Your task to perform on an android device: delete the emails in spam in the gmail app Image 0: 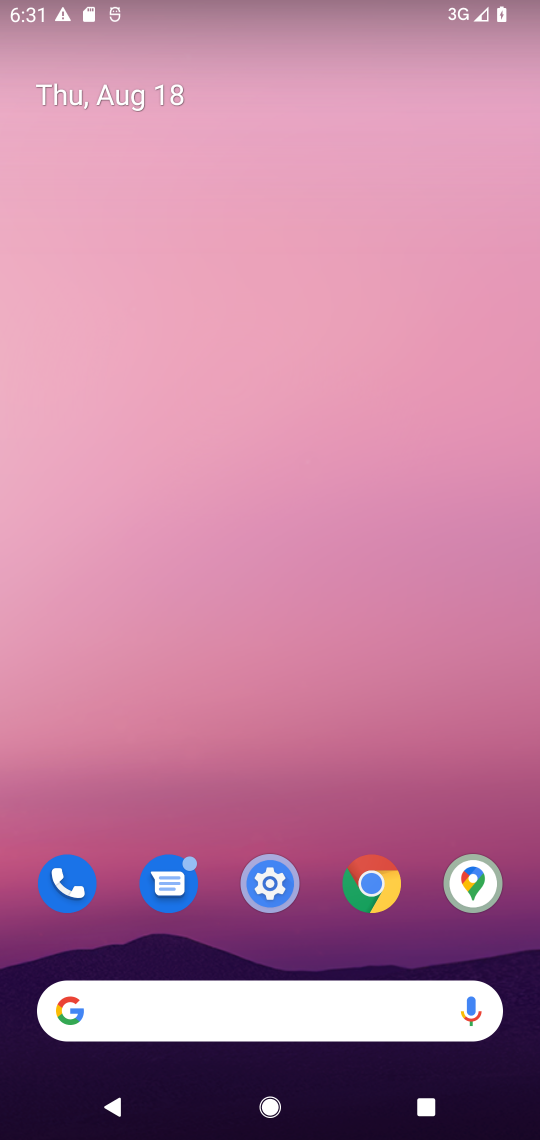
Step 0: drag from (47, 1086) to (270, 408)
Your task to perform on an android device: delete the emails in spam in the gmail app Image 1: 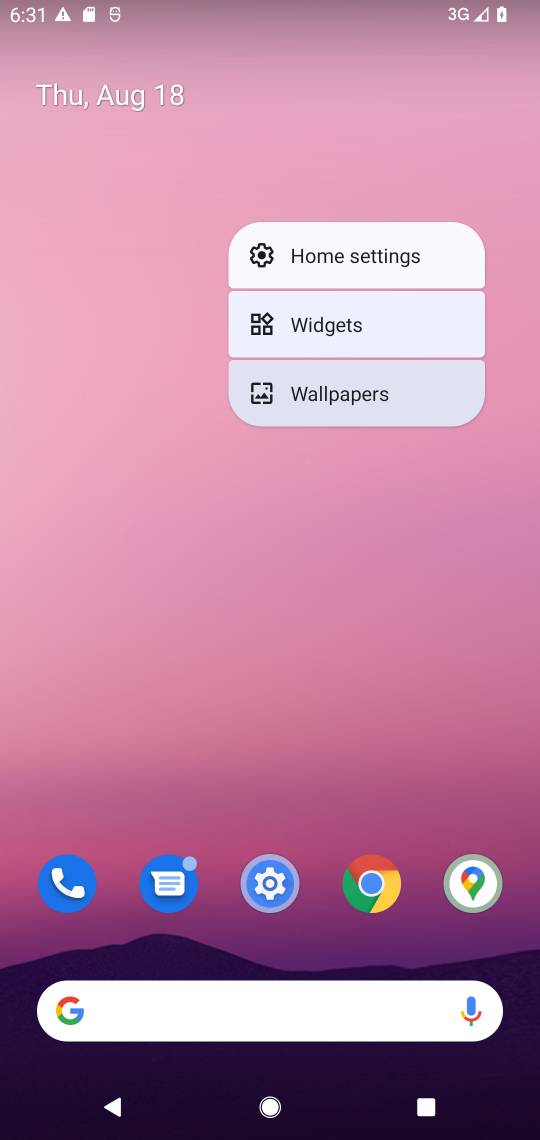
Step 1: drag from (21, 1068) to (137, 335)
Your task to perform on an android device: delete the emails in spam in the gmail app Image 2: 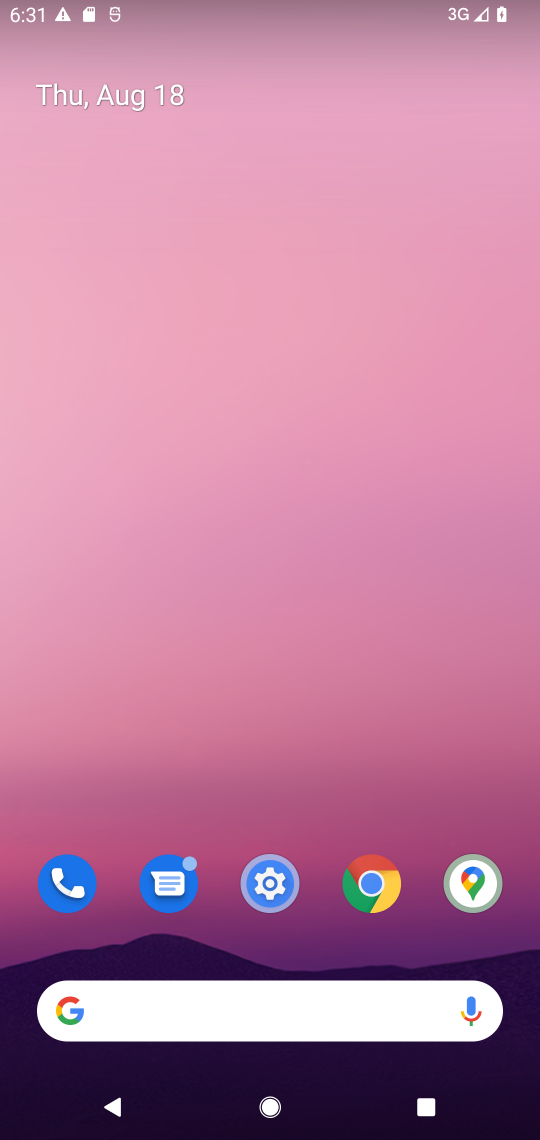
Step 2: drag from (42, 1096) to (337, 210)
Your task to perform on an android device: delete the emails in spam in the gmail app Image 3: 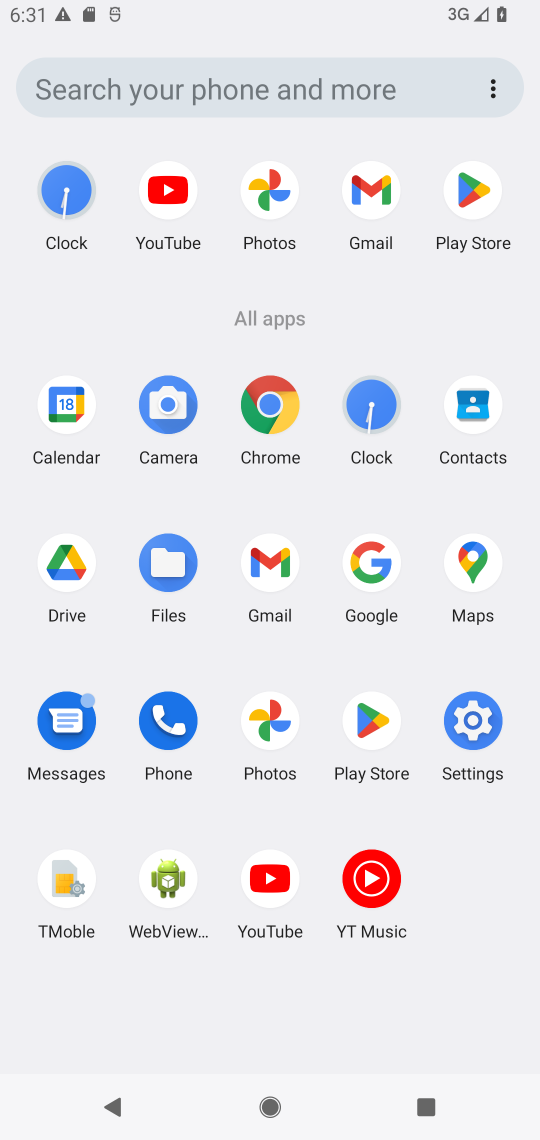
Step 3: click (357, 191)
Your task to perform on an android device: delete the emails in spam in the gmail app Image 4: 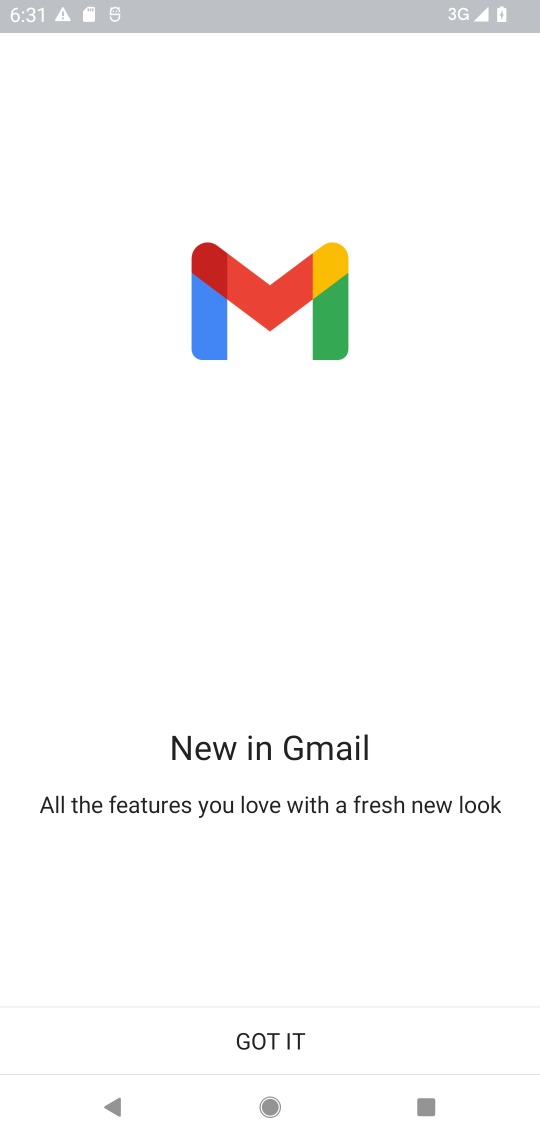
Step 4: click (269, 1037)
Your task to perform on an android device: delete the emails in spam in the gmail app Image 5: 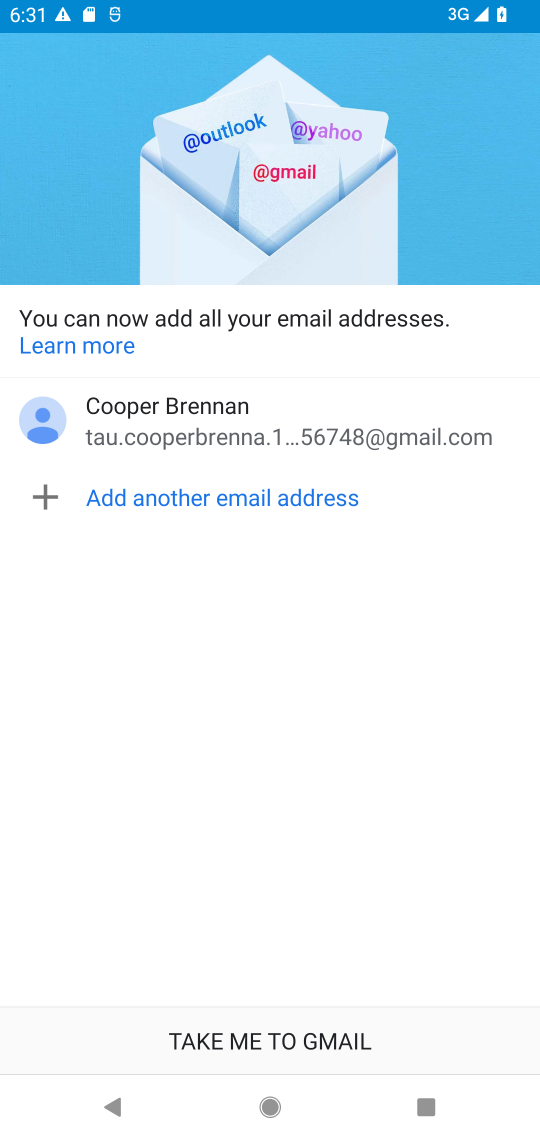
Step 5: click (269, 1037)
Your task to perform on an android device: delete the emails in spam in the gmail app Image 6: 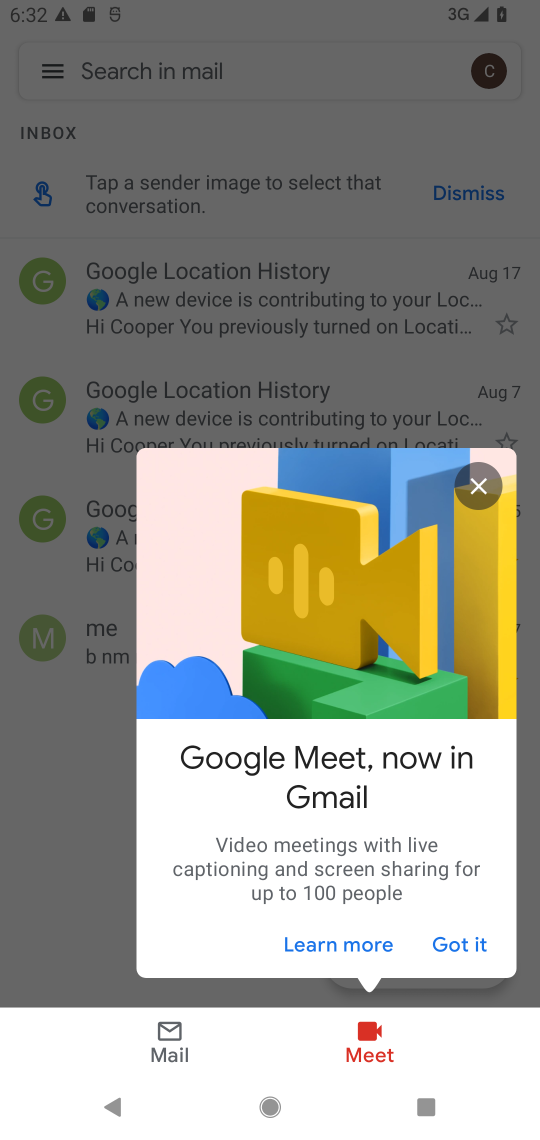
Step 6: click (473, 940)
Your task to perform on an android device: delete the emails in spam in the gmail app Image 7: 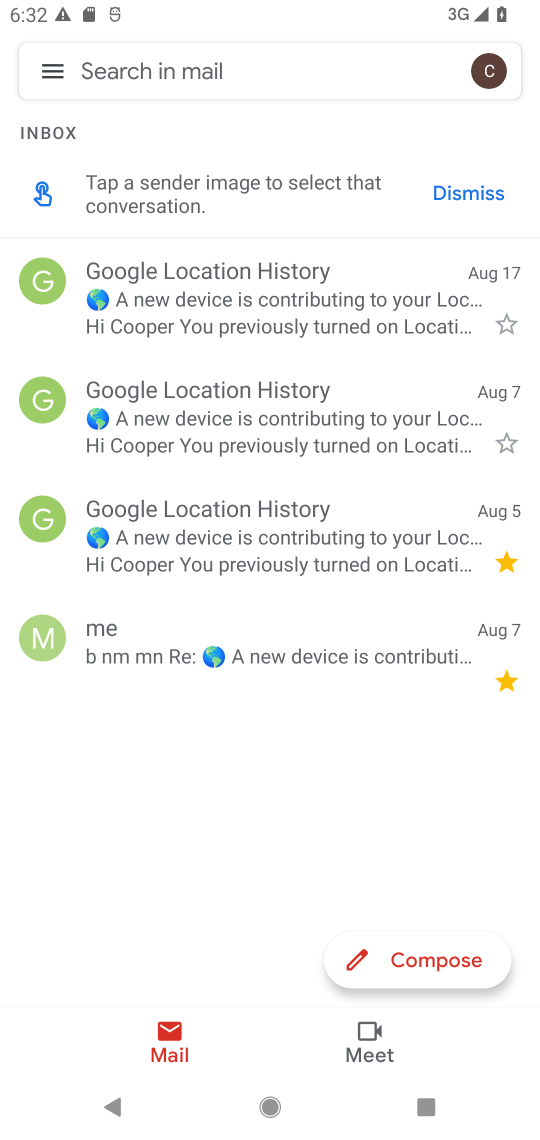
Step 7: click (52, 92)
Your task to perform on an android device: delete the emails in spam in the gmail app Image 8: 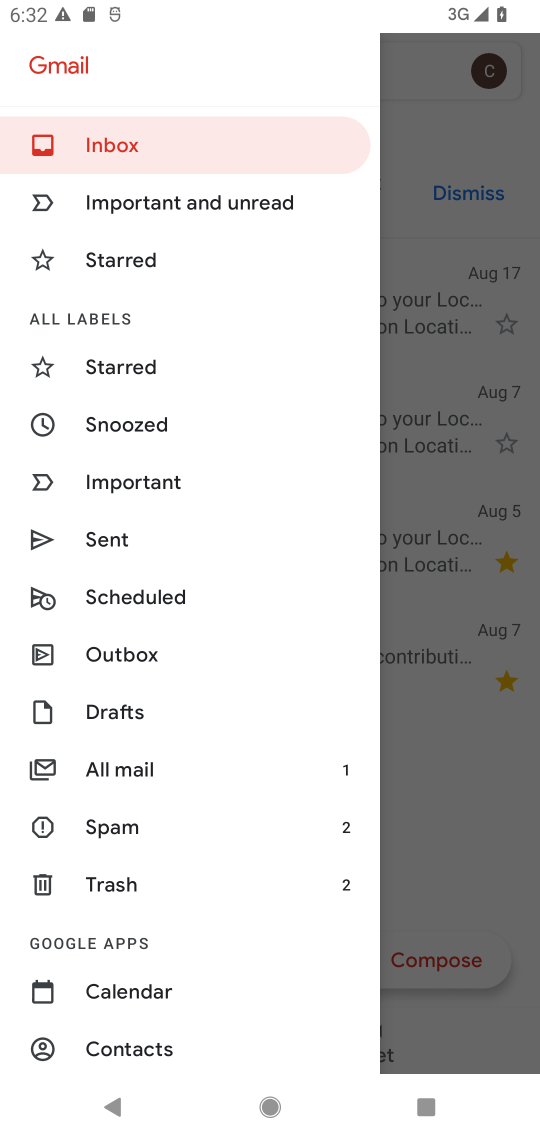
Step 8: click (123, 827)
Your task to perform on an android device: delete the emails in spam in the gmail app Image 9: 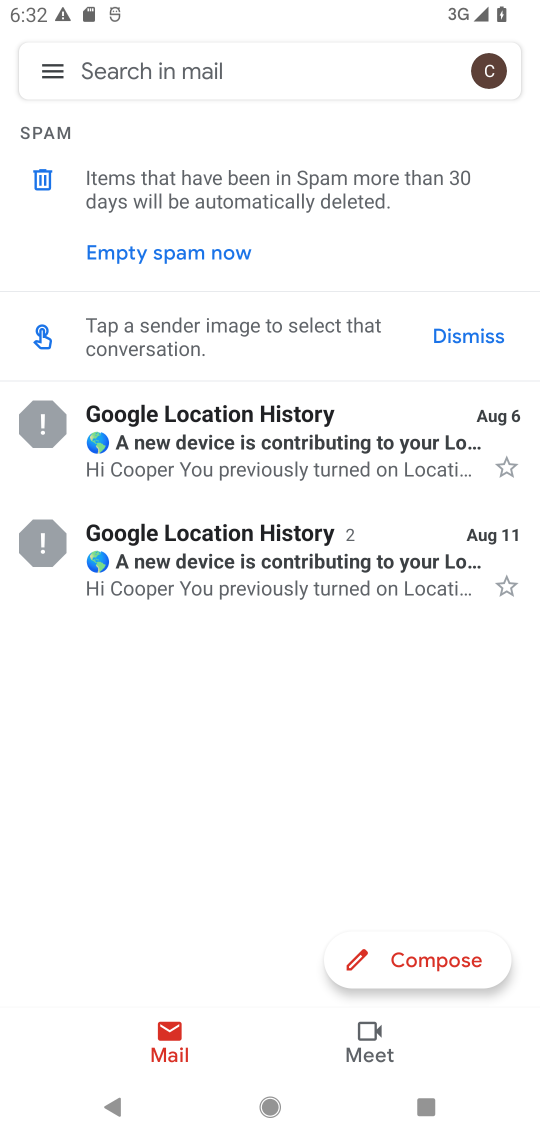
Step 9: click (213, 429)
Your task to perform on an android device: delete the emails in spam in the gmail app Image 10: 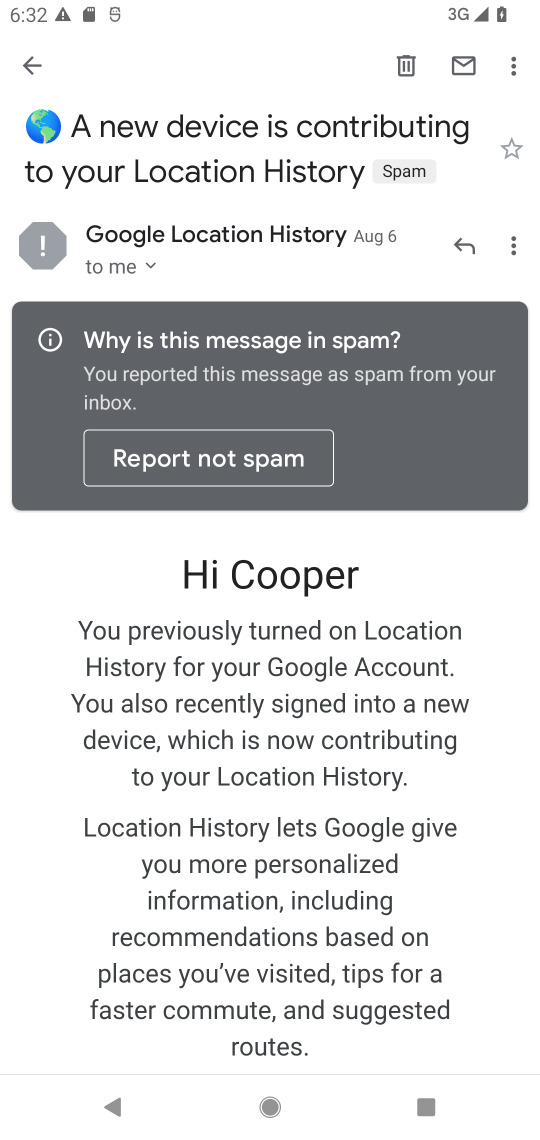
Step 10: click (416, 68)
Your task to perform on an android device: delete the emails in spam in the gmail app Image 11: 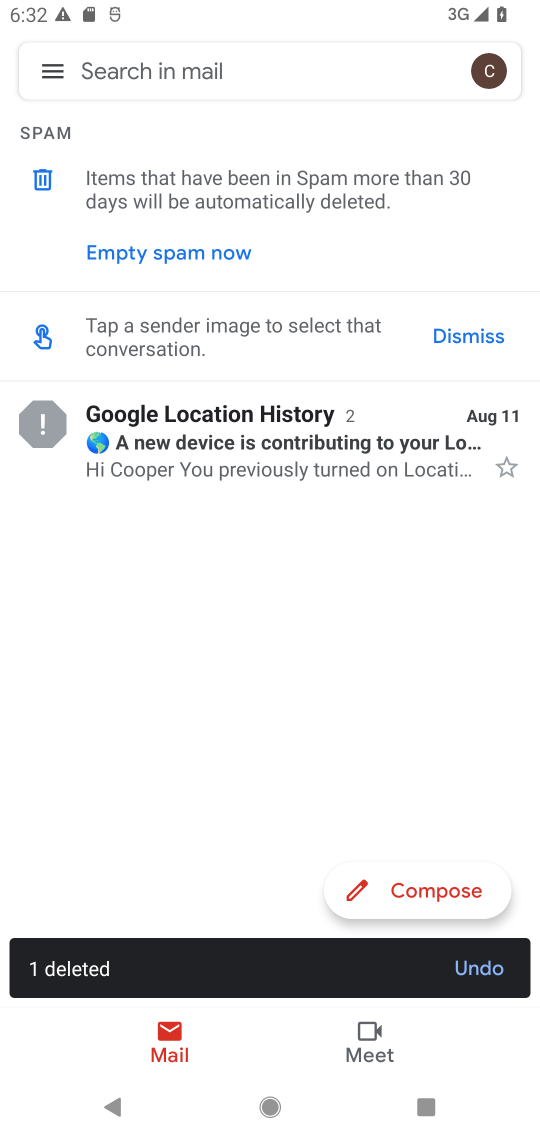
Step 11: task complete